Your task to perform on an android device: change the clock display to analog Image 0: 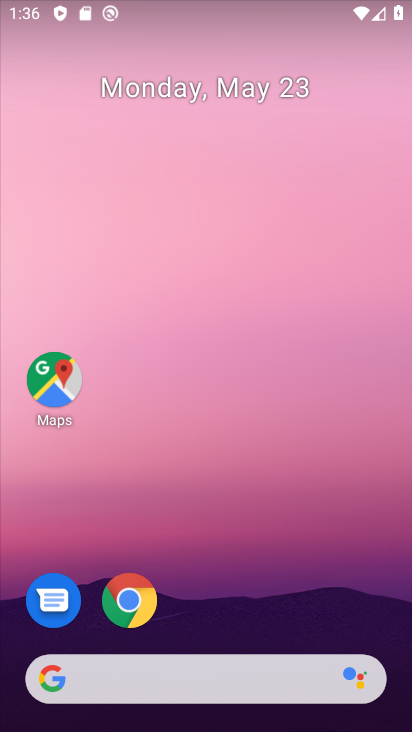
Step 0: drag from (232, 625) to (196, 70)
Your task to perform on an android device: change the clock display to analog Image 1: 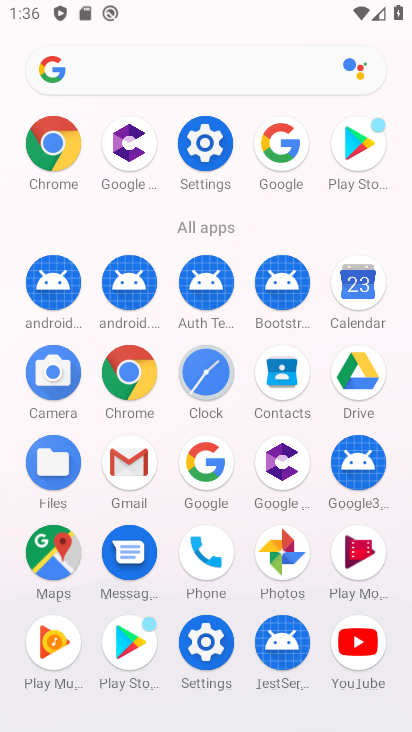
Step 1: click (214, 371)
Your task to perform on an android device: change the clock display to analog Image 2: 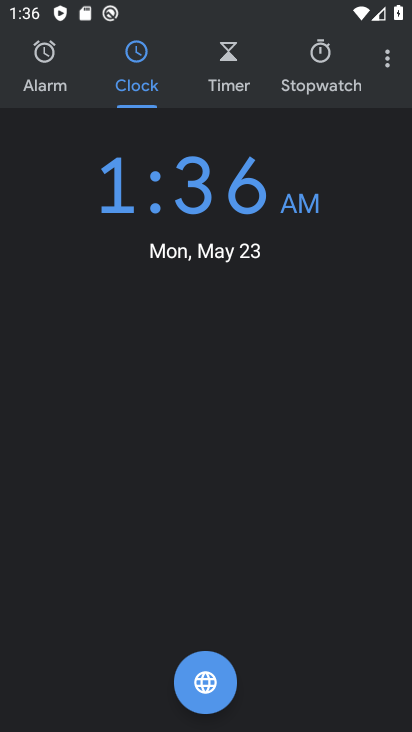
Step 2: click (396, 58)
Your task to perform on an android device: change the clock display to analog Image 3: 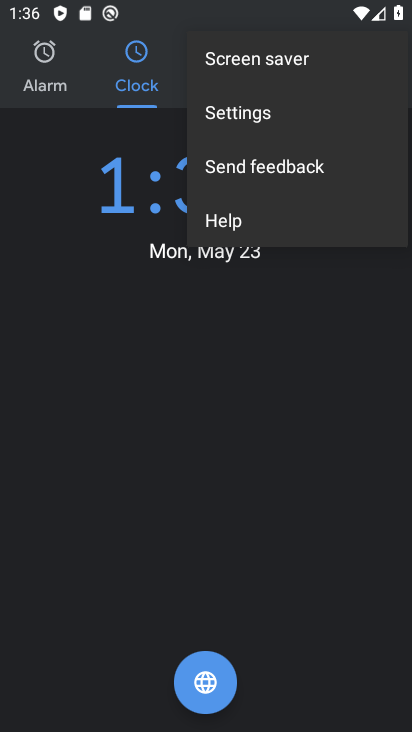
Step 3: click (324, 109)
Your task to perform on an android device: change the clock display to analog Image 4: 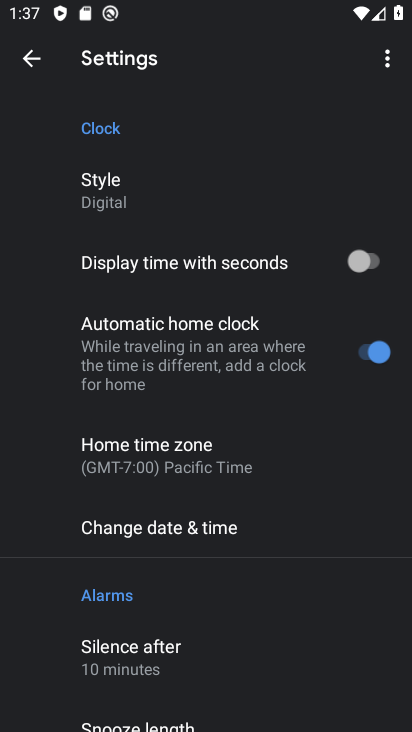
Step 4: click (186, 195)
Your task to perform on an android device: change the clock display to analog Image 5: 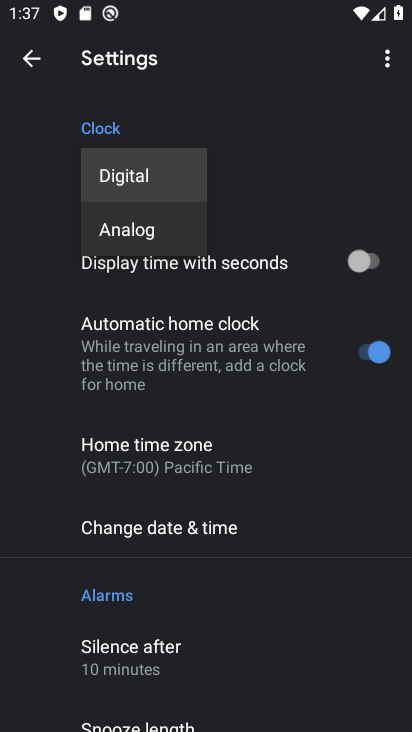
Step 5: click (181, 236)
Your task to perform on an android device: change the clock display to analog Image 6: 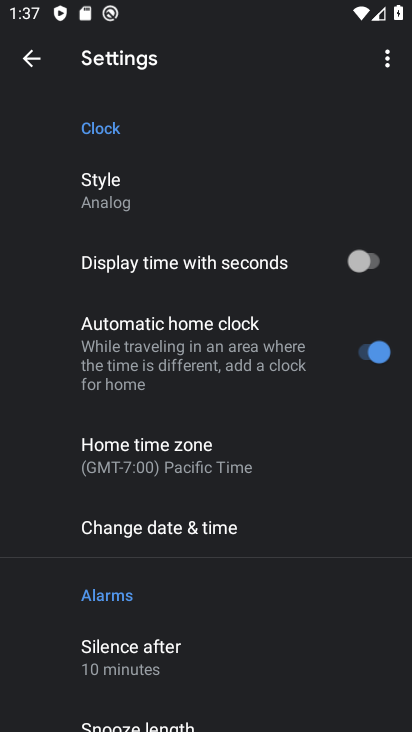
Step 6: task complete